Your task to perform on an android device: Open Wikipedia Image 0: 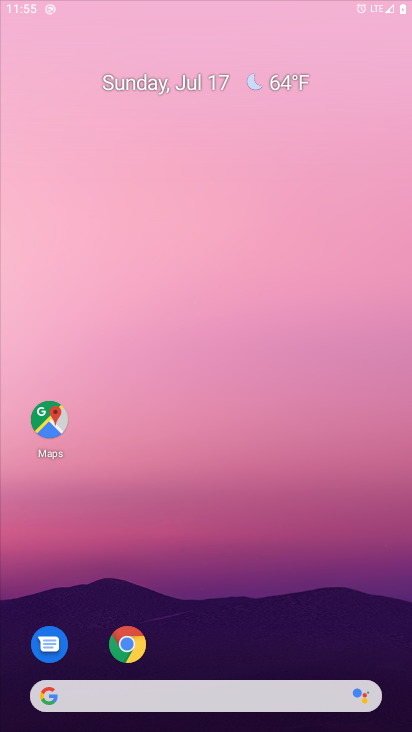
Step 0: press home button
Your task to perform on an android device: Open Wikipedia Image 1: 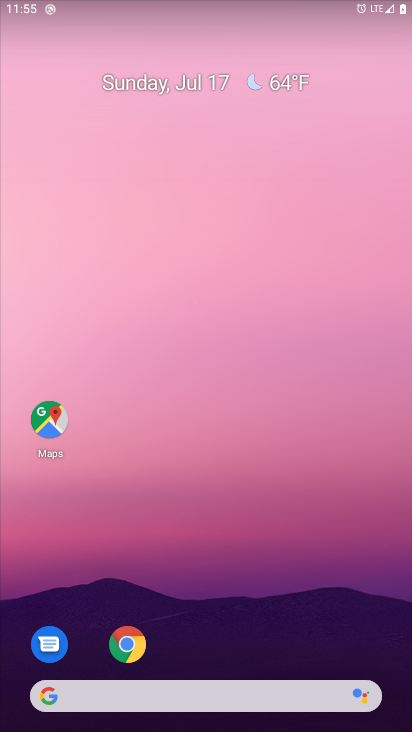
Step 1: click (42, 695)
Your task to perform on an android device: Open Wikipedia Image 2: 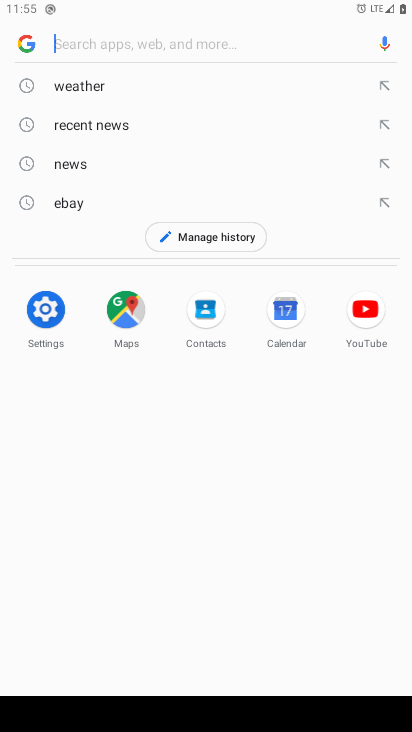
Step 2: type "Wikipedia"
Your task to perform on an android device: Open Wikipedia Image 3: 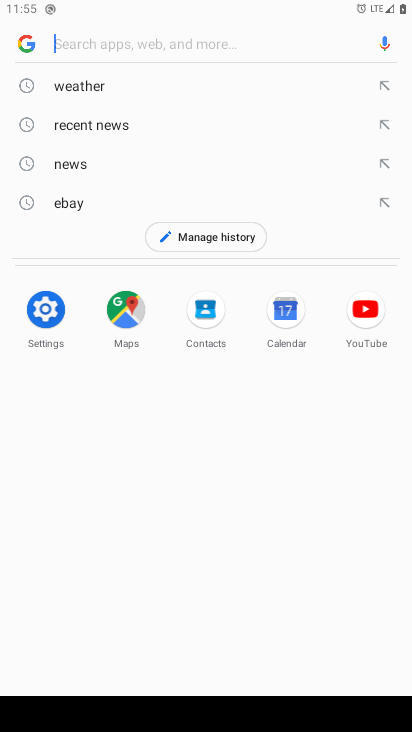
Step 3: click (96, 41)
Your task to perform on an android device: Open Wikipedia Image 4: 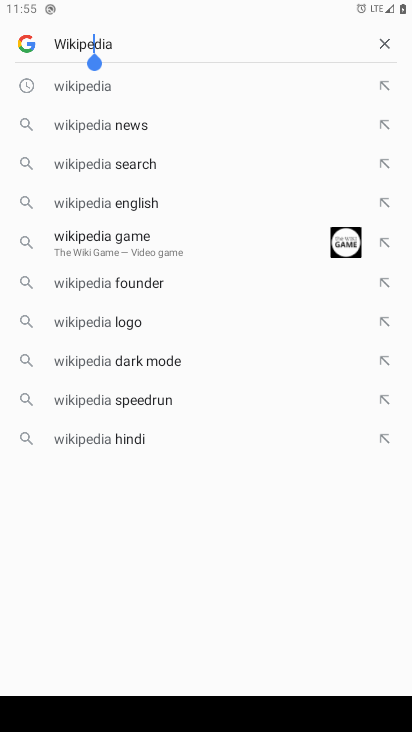
Step 4: click (80, 83)
Your task to perform on an android device: Open Wikipedia Image 5: 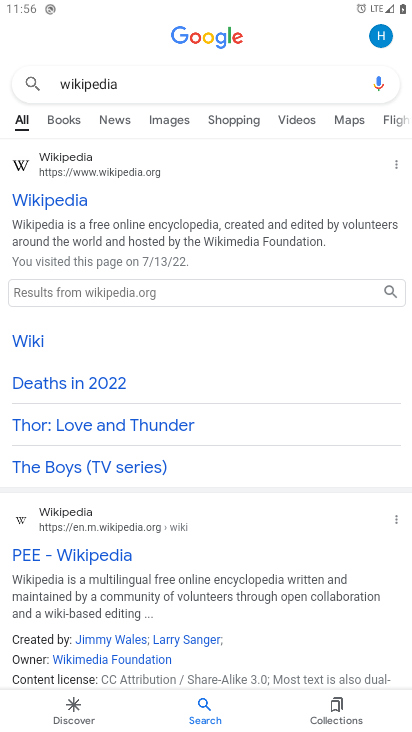
Step 5: click (25, 193)
Your task to perform on an android device: Open Wikipedia Image 6: 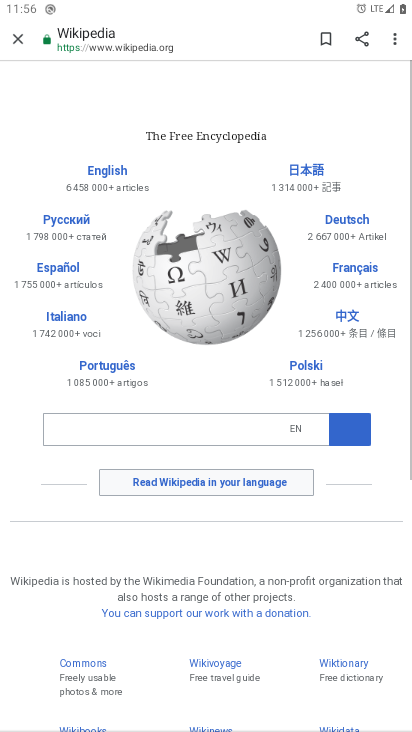
Step 6: task complete